Your task to perform on an android device: set default search engine in the chrome app Image 0: 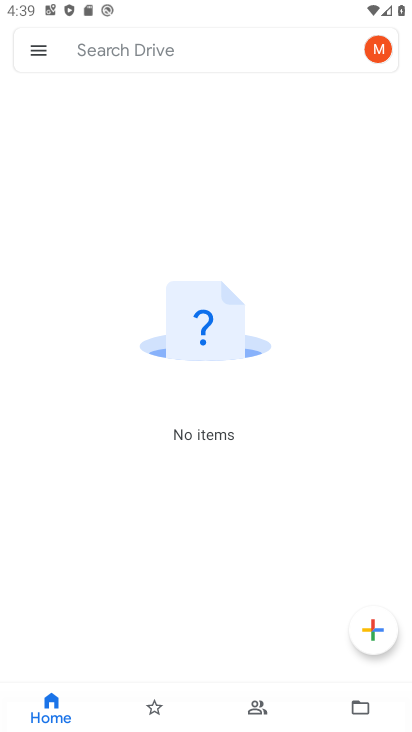
Step 0: press home button
Your task to perform on an android device: set default search engine in the chrome app Image 1: 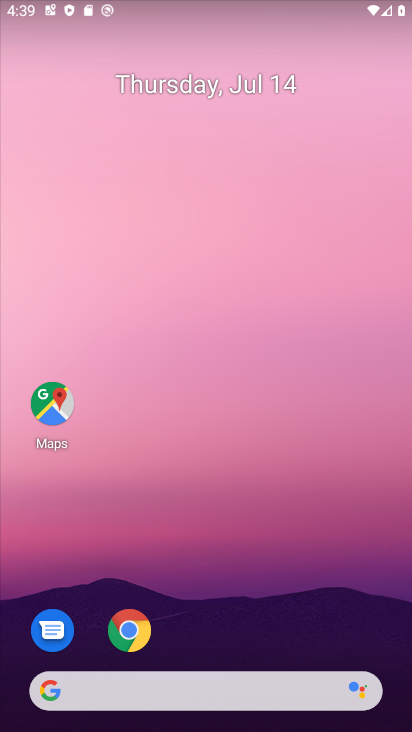
Step 1: click (127, 642)
Your task to perform on an android device: set default search engine in the chrome app Image 2: 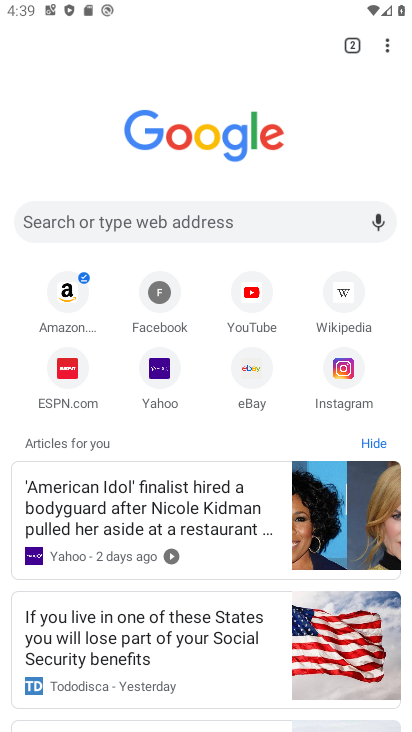
Step 2: click (399, 40)
Your task to perform on an android device: set default search engine in the chrome app Image 3: 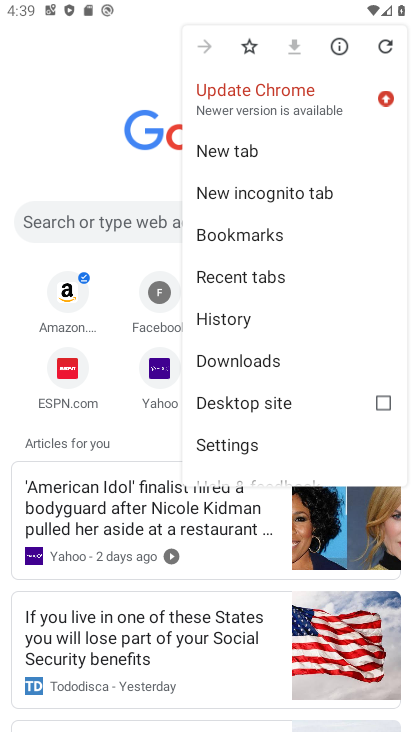
Step 3: click (235, 446)
Your task to perform on an android device: set default search engine in the chrome app Image 4: 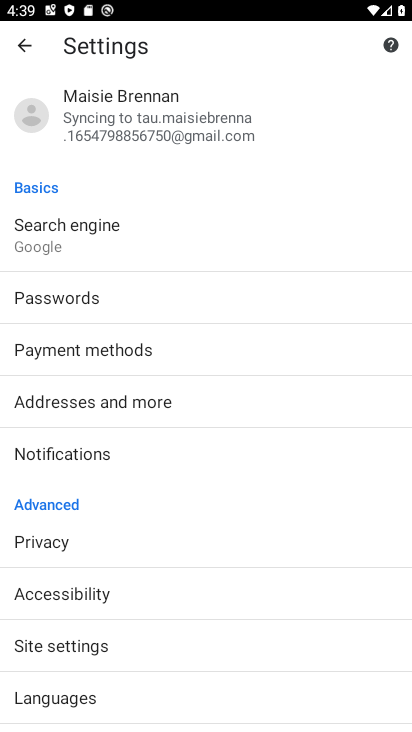
Step 4: click (117, 225)
Your task to perform on an android device: set default search engine in the chrome app Image 5: 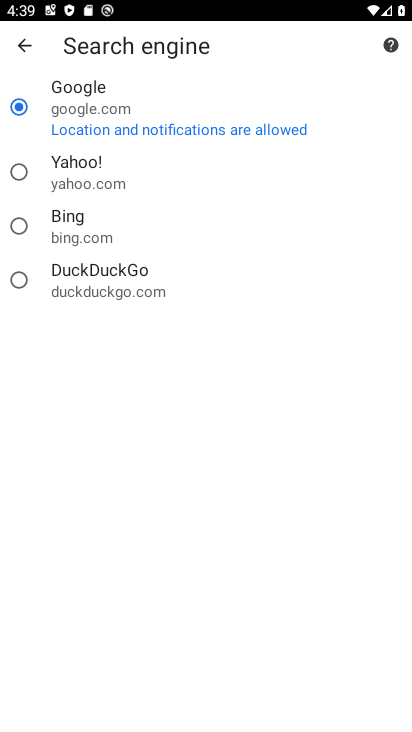
Step 5: click (98, 188)
Your task to perform on an android device: set default search engine in the chrome app Image 6: 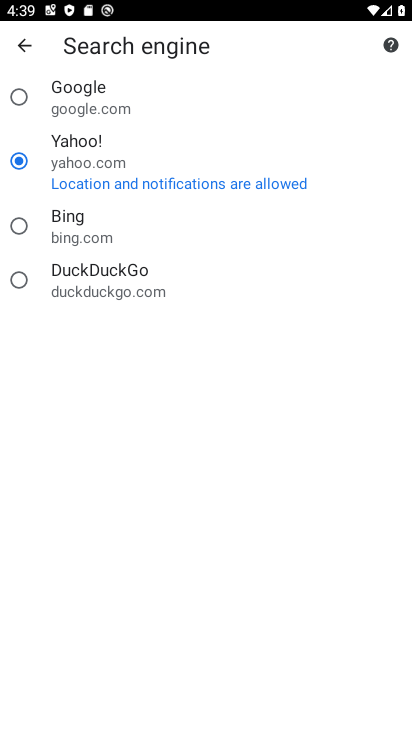
Step 6: task complete